Your task to perform on an android device: Go to sound settings Image 0: 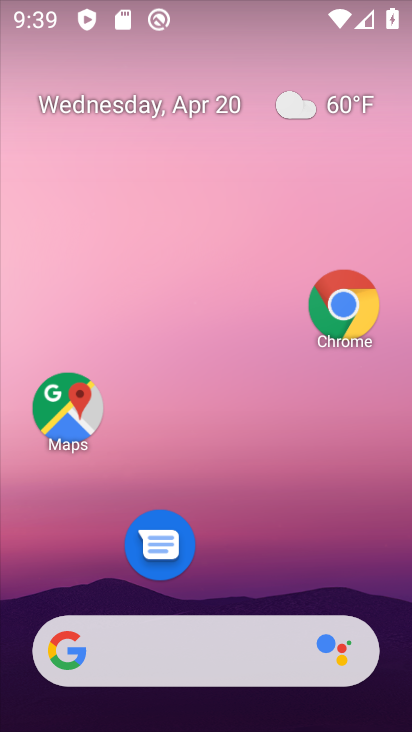
Step 0: drag from (239, 541) to (318, 16)
Your task to perform on an android device: Go to sound settings Image 1: 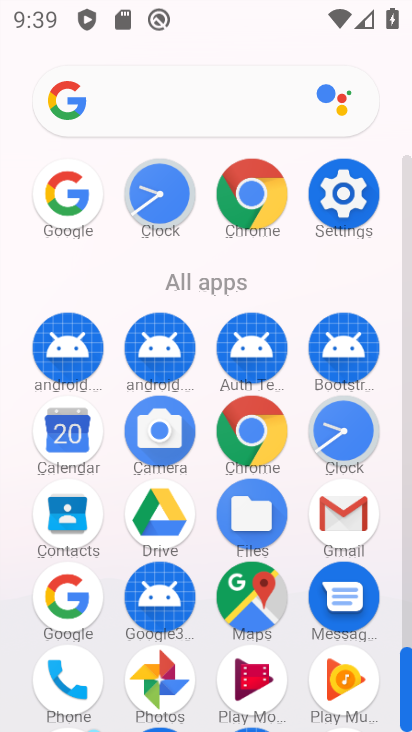
Step 1: click (351, 197)
Your task to perform on an android device: Go to sound settings Image 2: 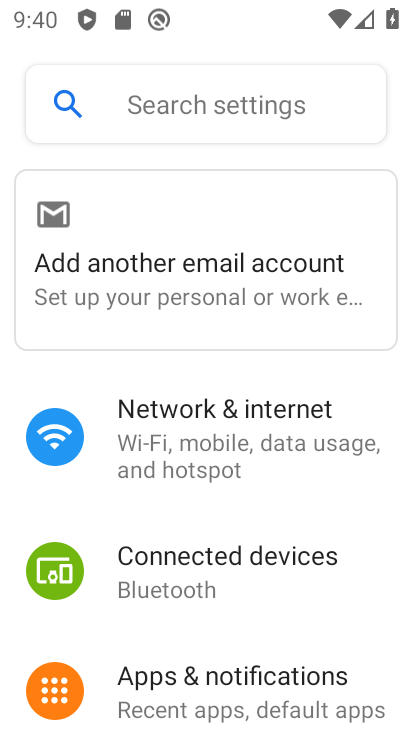
Step 2: drag from (209, 629) to (239, 403)
Your task to perform on an android device: Go to sound settings Image 3: 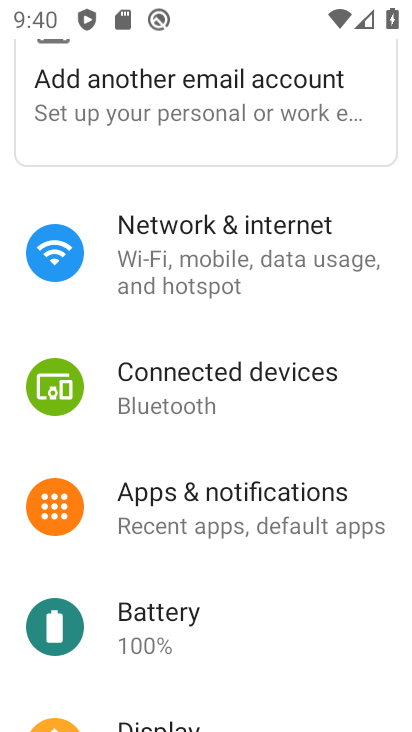
Step 3: drag from (207, 561) to (236, 372)
Your task to perform on an android device: Go to sound settings Image 4: 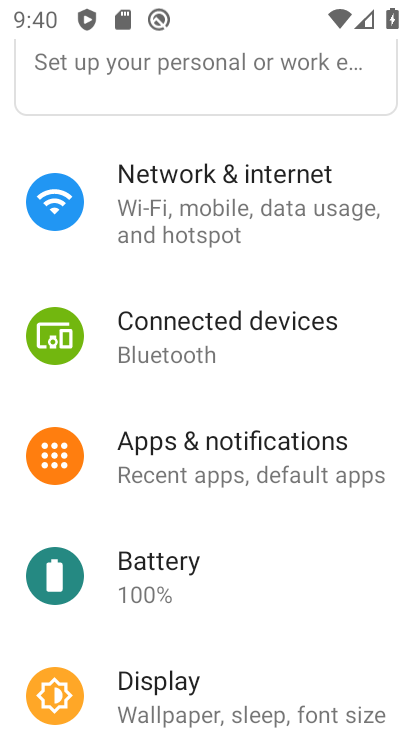
Step 4: drag from (237, 667) to (271, 294)
Your task to perform on an android device: Go to sound settings Image 5: 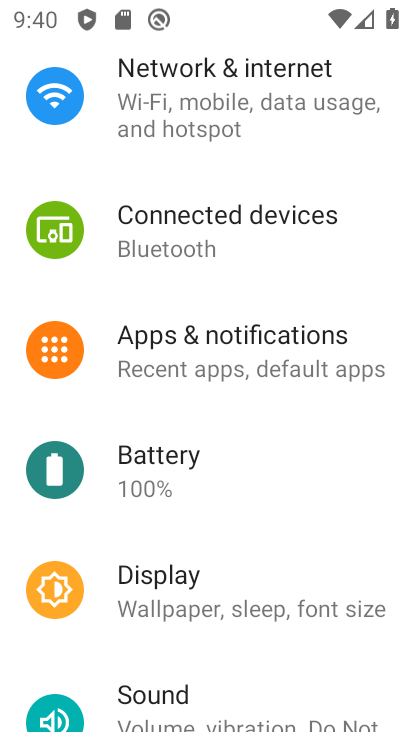
Step 5: drag from (231, 510) to (303, 109)
Your task to perform on an android device: Go to sound settings Image 6: 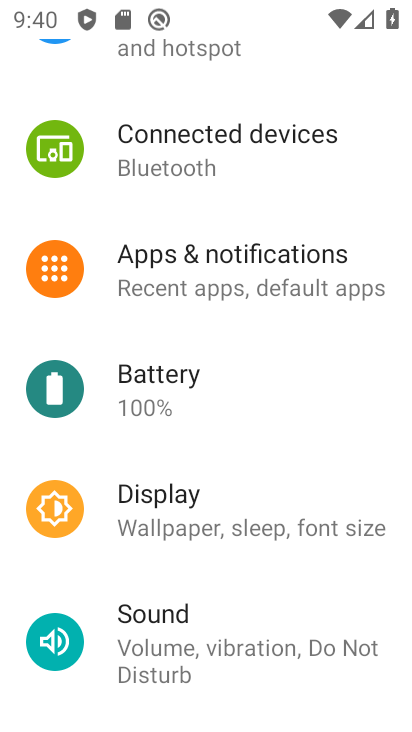
Step 6: click (206, 632)
Your task to perform on an android device: Go to sound settings Image 7: 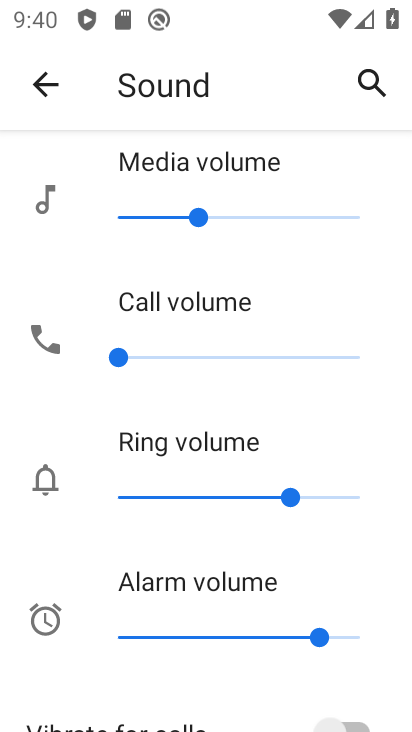
Step 7: task complete